Your task to perform on an android device: manage bookmarks in the chrome app Image 0: 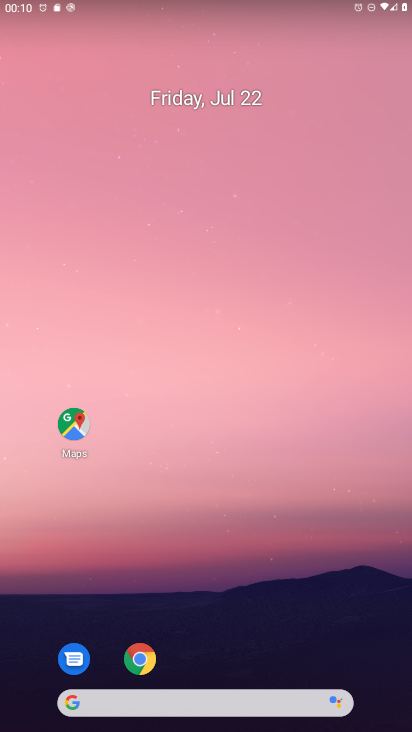
Step 0: click (137, 659)
Your task to perform on an android device: manage bookmarks in the chrome app Image 1: 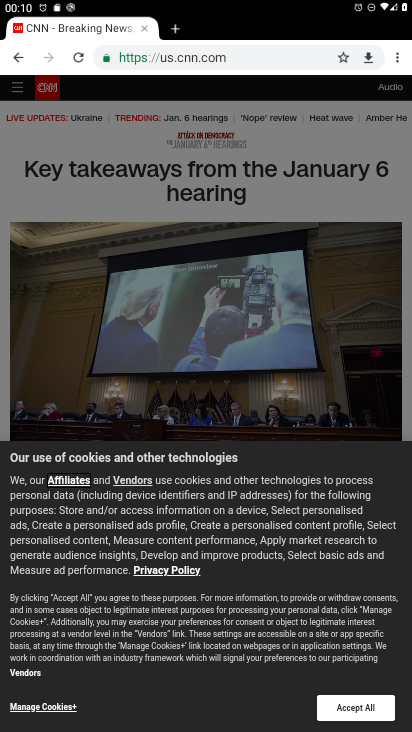
Step 1: click (396, 57)
Your task to perform on an android device: manage bookmarks in the chrome app Image 2: 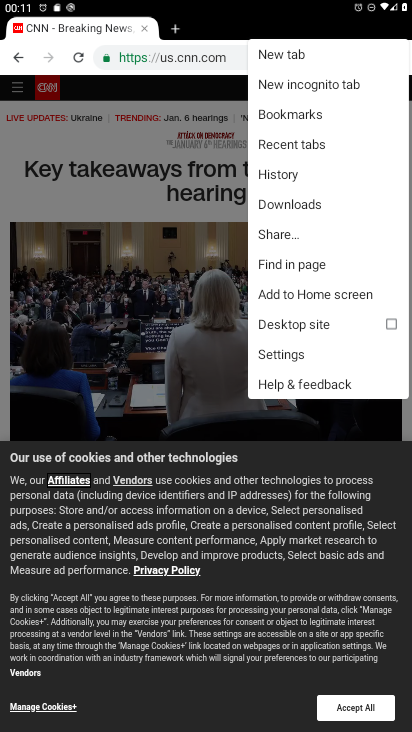
Step 2: click (310, 117)
Your task to perform on an android device: manage bookmarks in the chrome app Image 3: 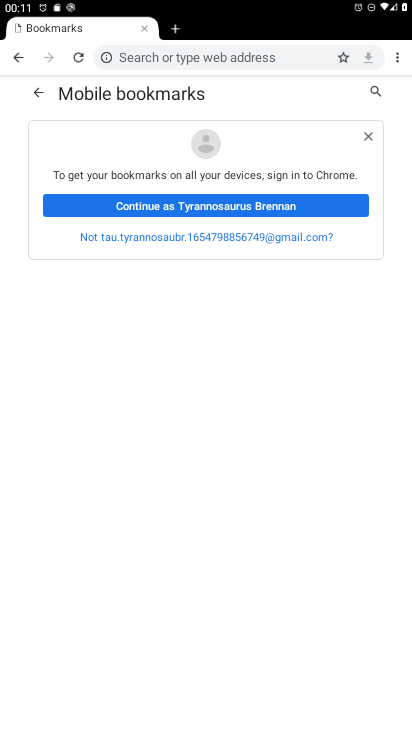
Step 3: click (323, 206)
Your task to perform on an android device: manage bookmarks in the chrome app Image 4: 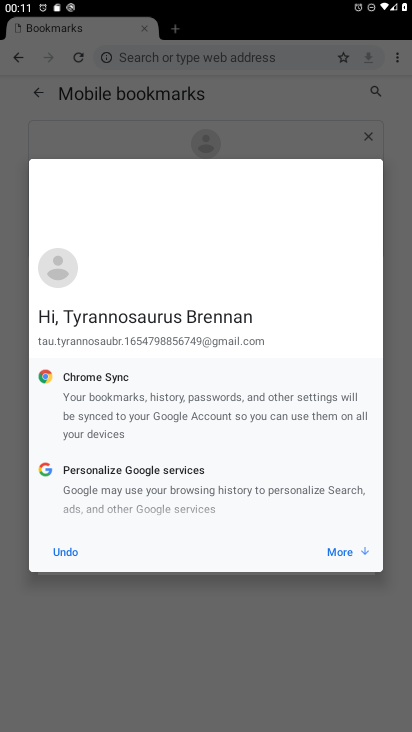
Step 4: click (344, 559)
Your task to perform on an android device: manage bookmarks in the chrome app Image 5: 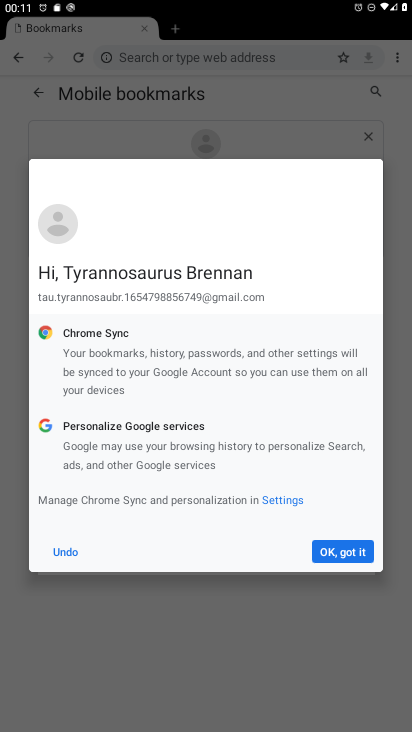
Step 5: click (344, 559)
Your task to perform on an android device: manage bookmarks in the chrome app Image 6: 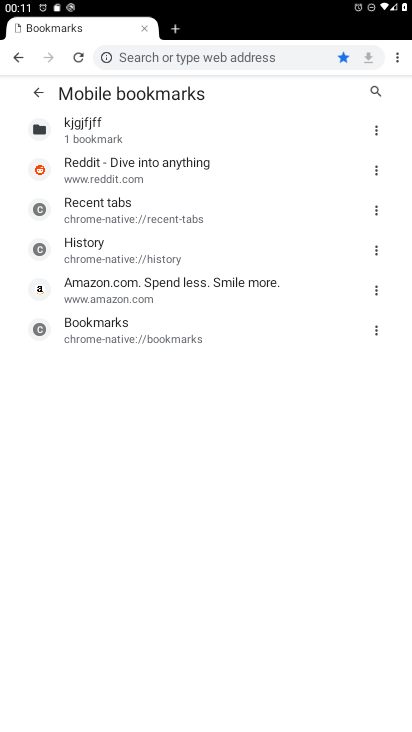
Step 6: click (376, 127)
Your task to perform on an android device: manage bookmarks in the chrome app Image 7: 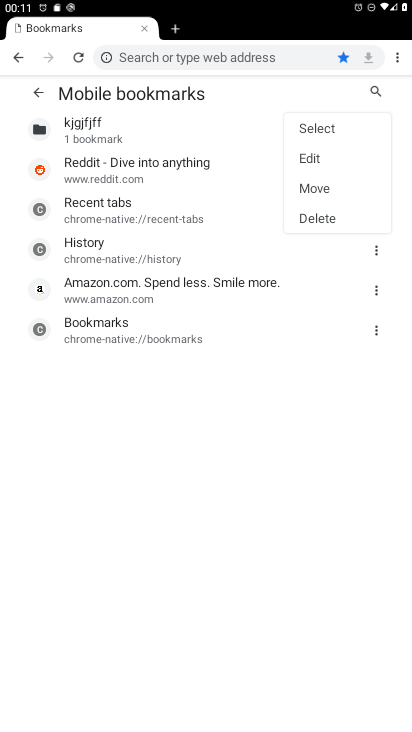
Step 7: click (313, 160)
Your task to perform on an android device: manage bookmarks in the chrome app Image 8: 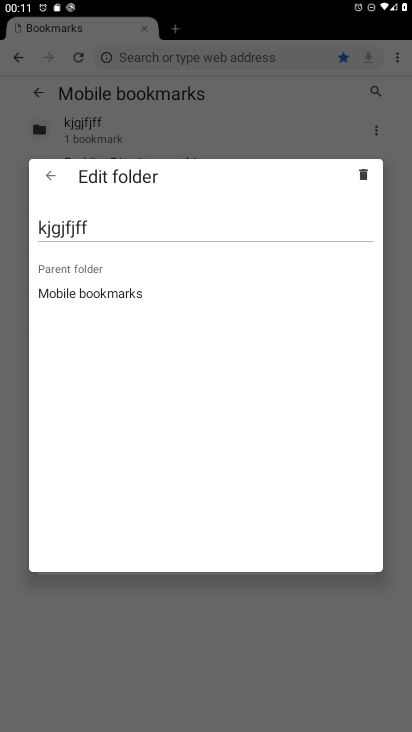
Step 8: click (362, 168)
Your task to perform on an android device: manage bookmarks in the chrome app Image 9: 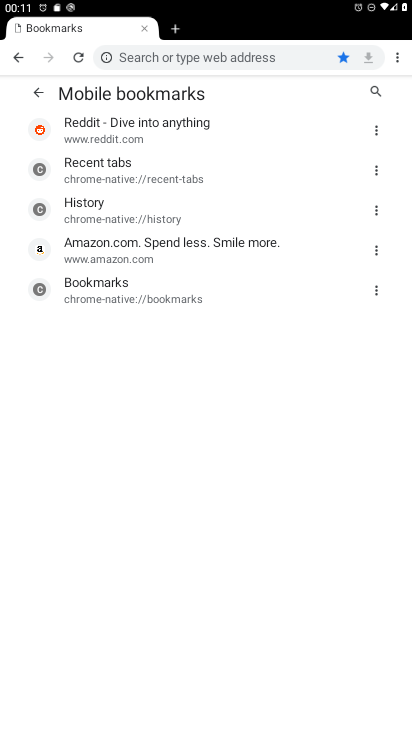
Step 9: task complete